Your task to perform on an android device: visit the assistant section in the google photos Image 0: 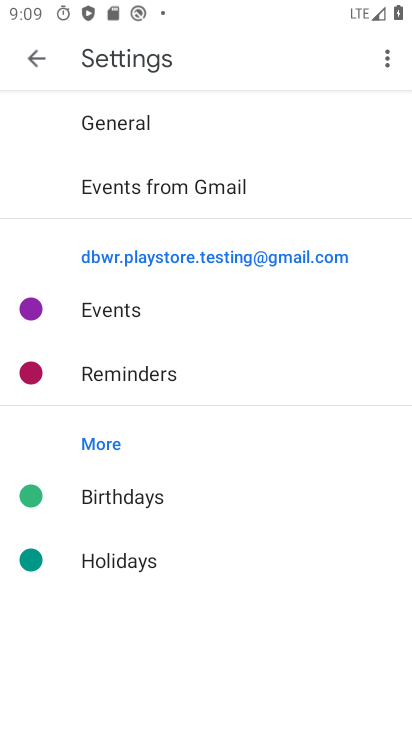
Step 0: press home button
Your task to perform on an android device: visit the assistant section in the google photos Image 1: 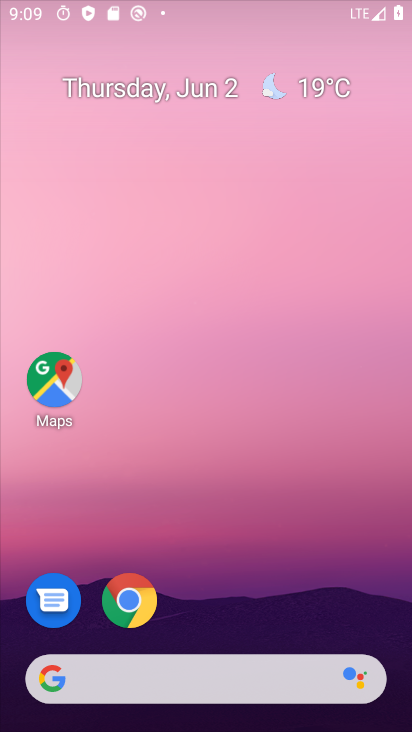
Step 1: drag from (241, 631) to (261, 196)
Your task to perform on an android device: visit the assistant section in the google photos Image 2: 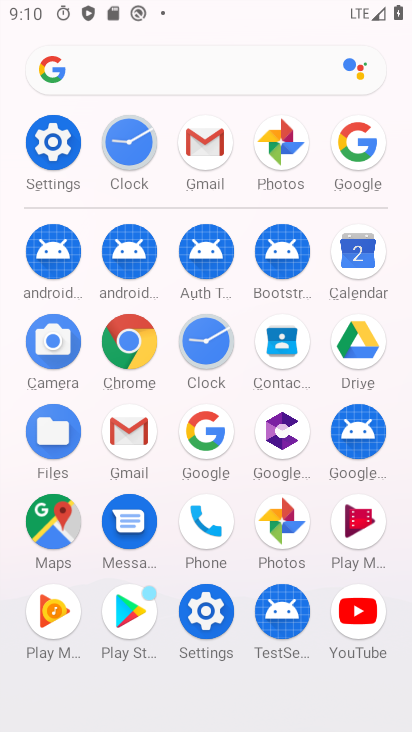
Step 2: click (271, 165)
Your task to perform on an android device: visit the assistant section in the google photos Image 3: 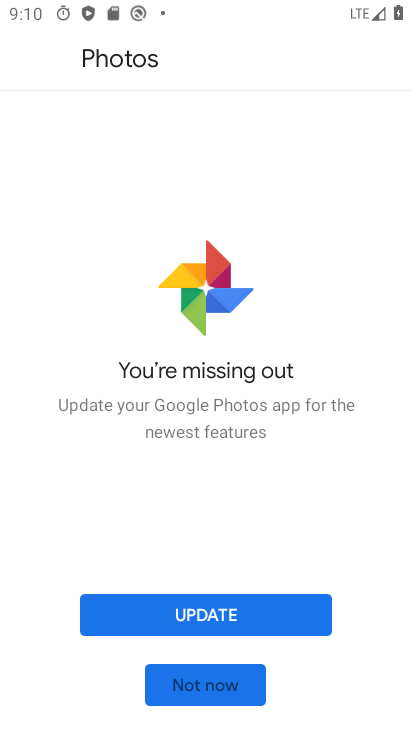
Step 3: click (235, 682)
Your task to perform on an android device: visit the assistant section in the google photos Image 4: 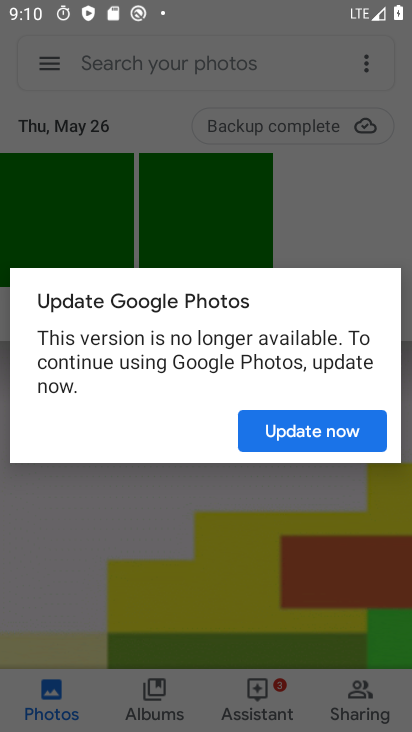
Step 4: click (283, 433)
Your task to perform on an android device: visit the assistant section in the google photos Image 5: 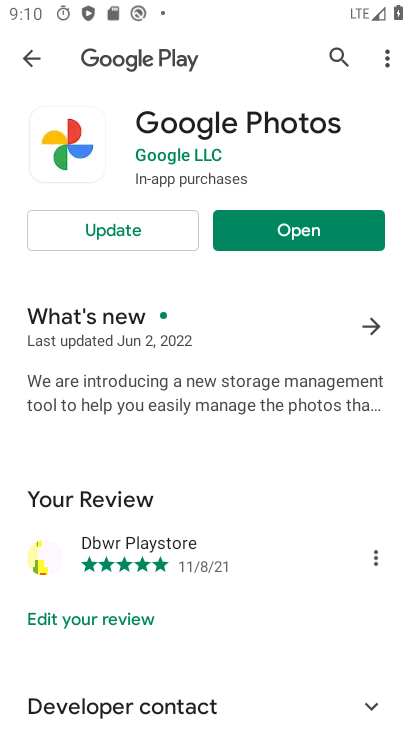
Step 5: click (260, 230)
Your task to perform on an android device: visit the assistant section in the google photos Image 6: 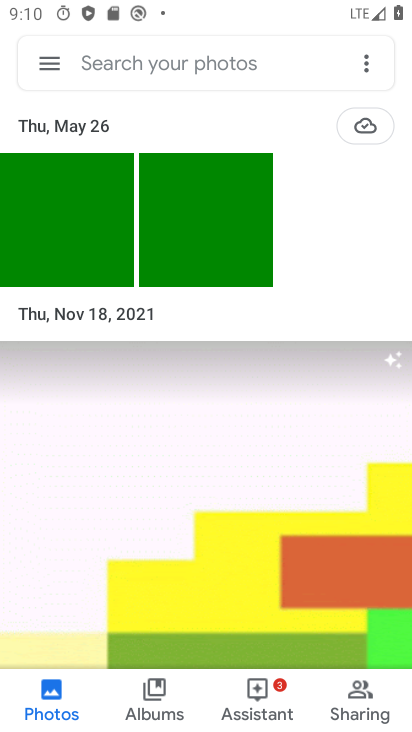
Step 6: click (250, 705)
Your task to perform on an android device: visit the assistant section in the google photos Image 7: 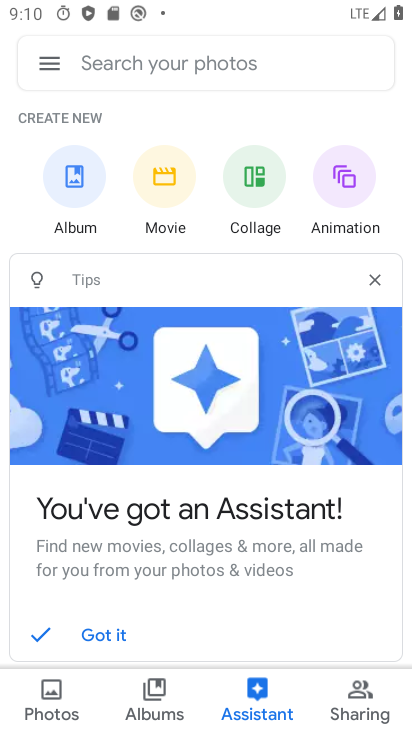
Step 7: task complete